Your task to perform on an android device: Clear the cart on target.com. Search for "dell alienware" on target.com, select the first entry, and add it to the cart. Image 0: 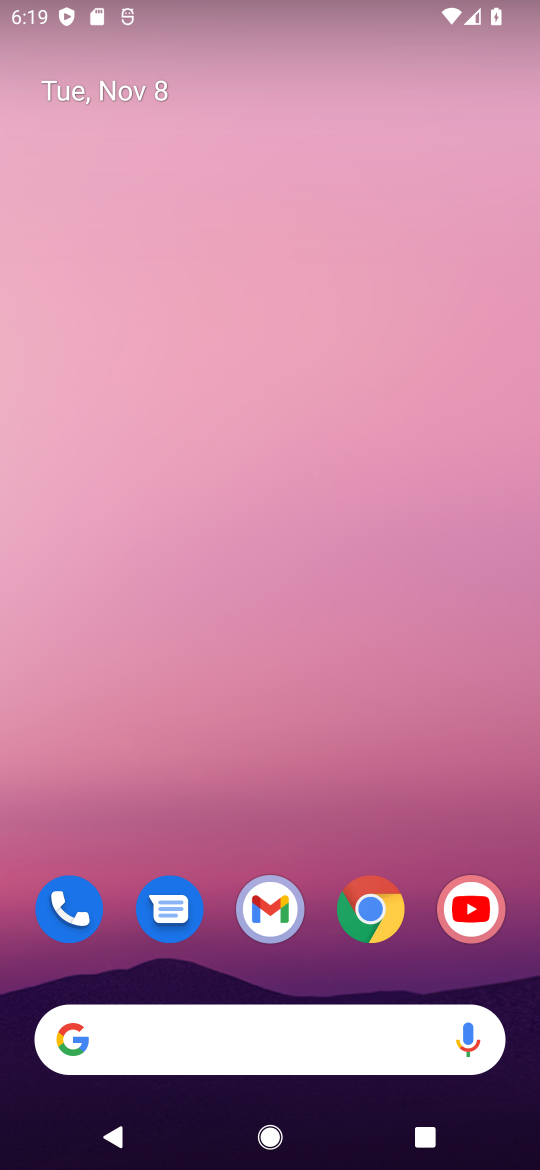
Step 0: click (381, 903)
Your task to perform on an android device: Clear the cart on target.com. Search for "dell alienware" on target.com, select the first entry, and add it to the cart. Image 1: 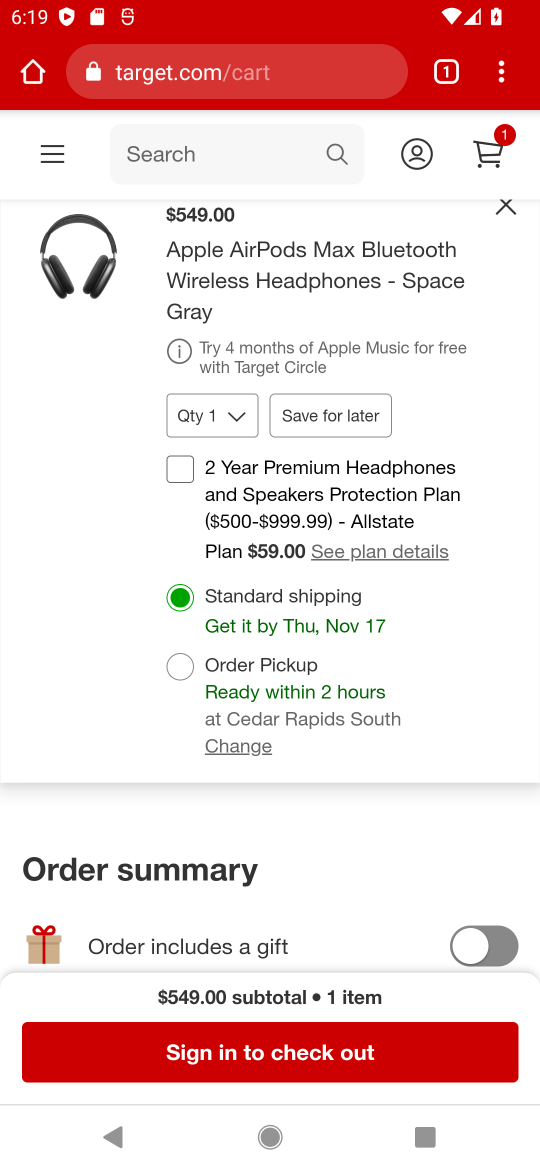
Step 1: click (245, 167)
Your task to perform on an android device: Clear the cart on target.com. Search for "dell alienware" on target.com, select the first entry, and add it to the cart. Image 2: 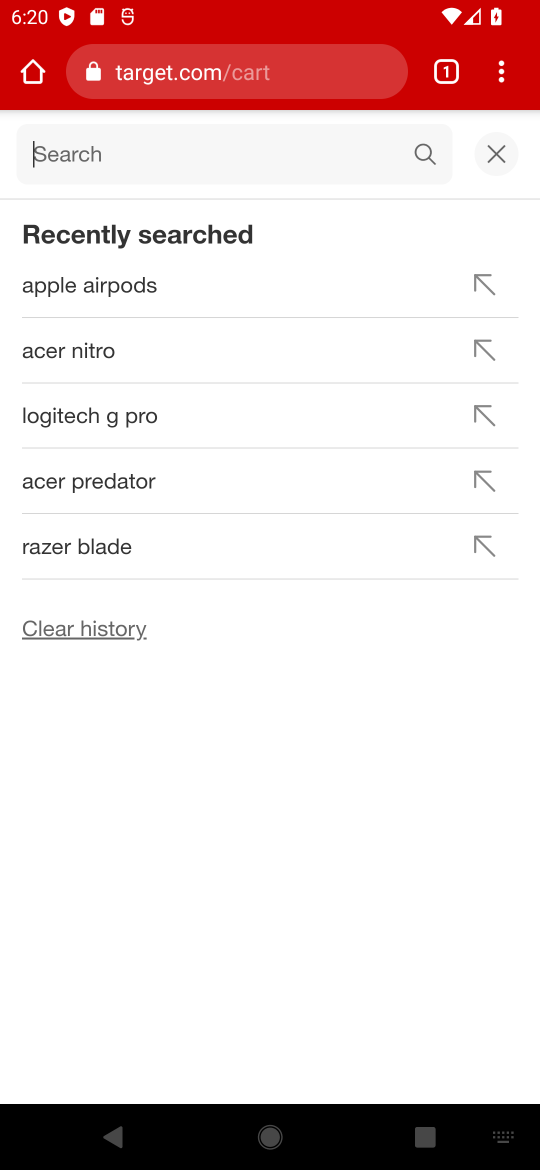
Step 2: type "dell alienware"
Your task to perform on an android device: Clear the cart on target.com. Search for "dell alienware" on target.com, select the first entry, and add it to the cart. Image 3: 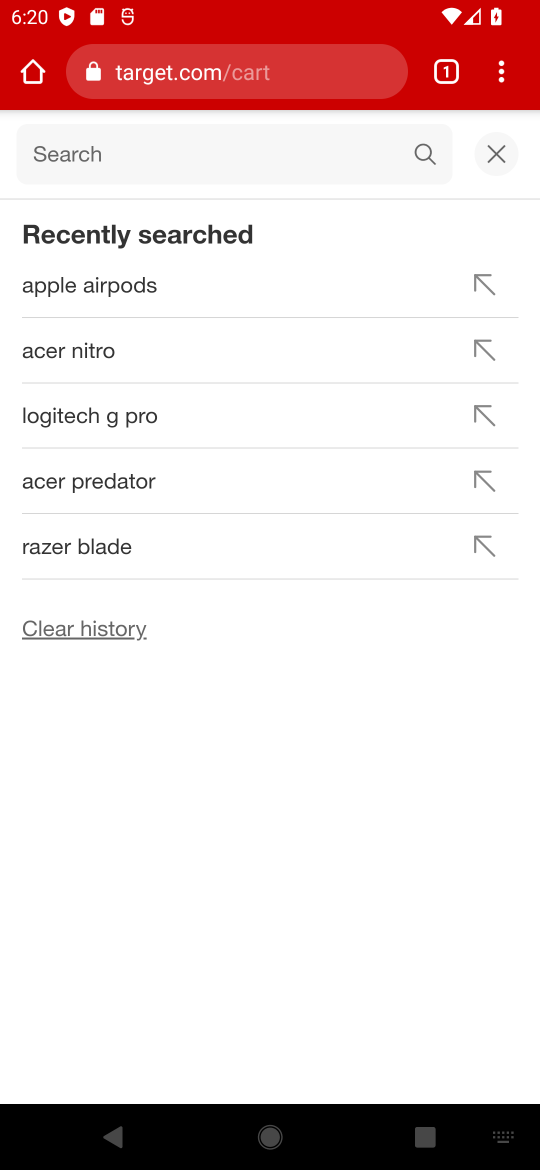
Step 3: press enter
Your task to perform on an android device: Clear the cart on target.com. Search for "dell alienware" on target.com, select the first entry, and add it to the cart. Image 4: 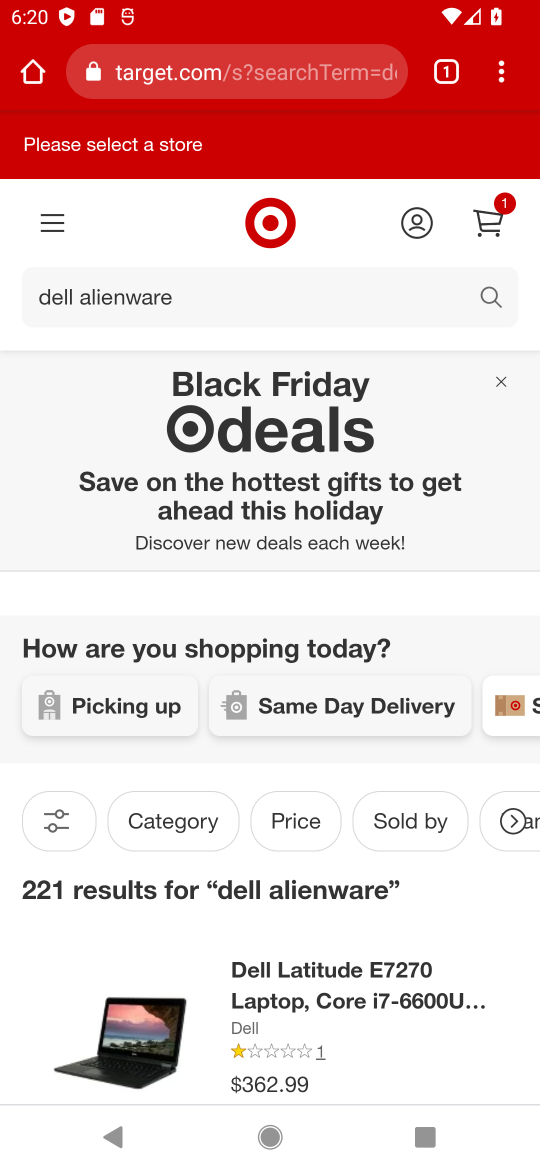
Step 4: task complete